Your task to perform on an android device: turn vacation reply on in the gmail app Image 0: 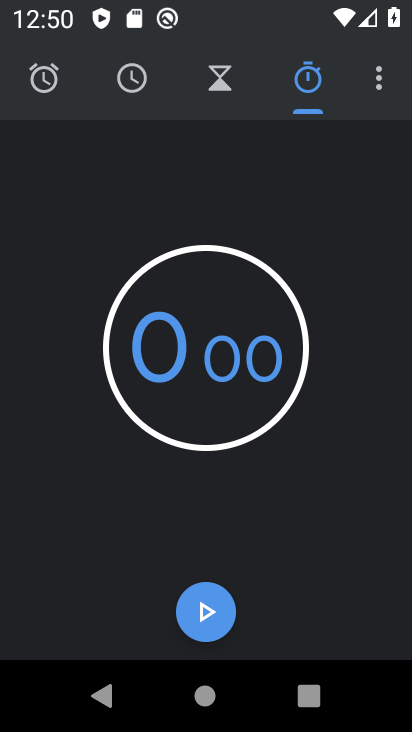
Step 0: press home button
Your task to perform on an android device: turn vacation reply on in the gmail app Image 1: 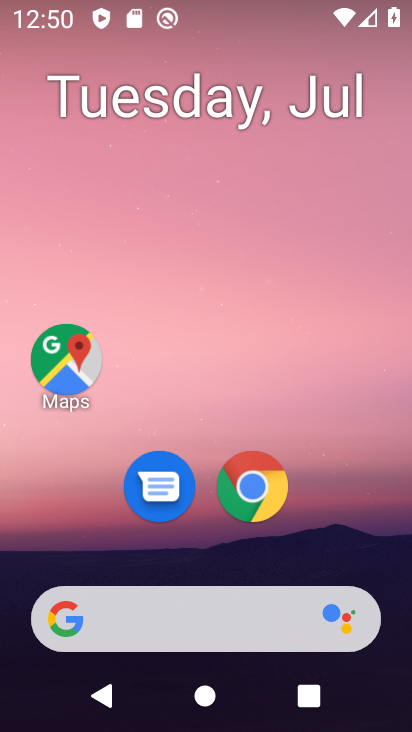
Step 1: drag from (323, 543) to (333, 93)
Your task to perform on an android device: turn vacation reply on in the gmail app Image 2: 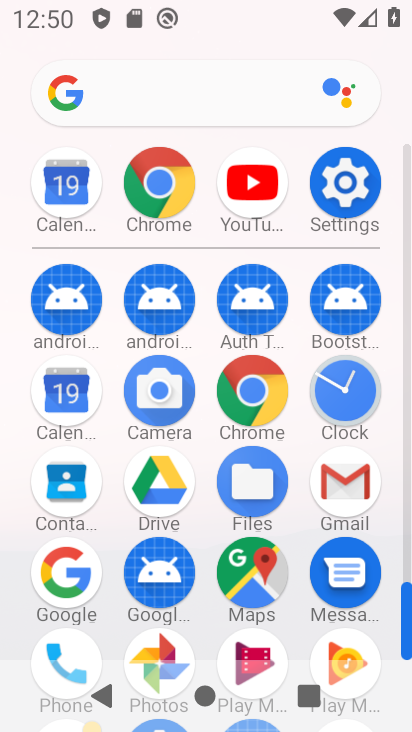
Step 2: click (345, 469)
Your task to perform on an android device: turn vacation reply on in the gmail app Image 3: 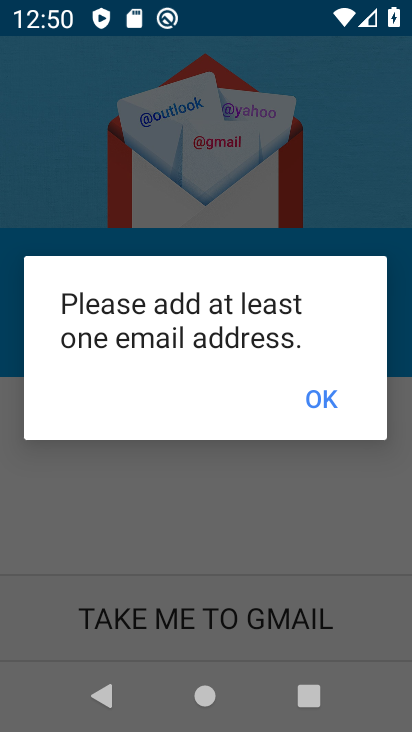
Step 3: task complete